Your task to perform on an android device: change notifications settings Image 0: 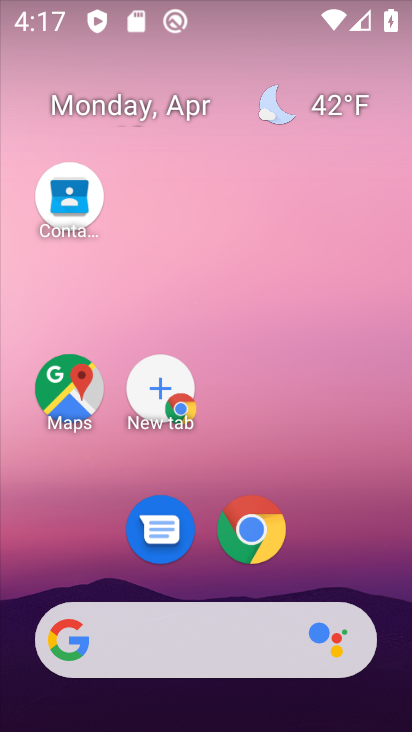
Step 0: drag from (186, 489) to (249, 102)
Your task to perform on an android device: change notifications settings Image 1: 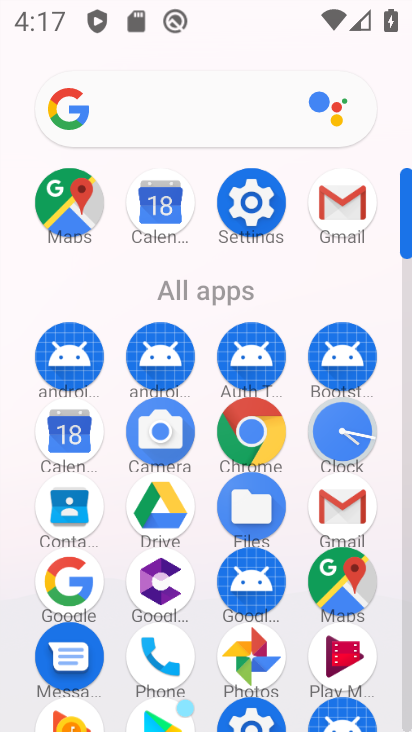
Step 1: click (257, 206)
Your task to perform on an android device: change notifications settings Image 2: 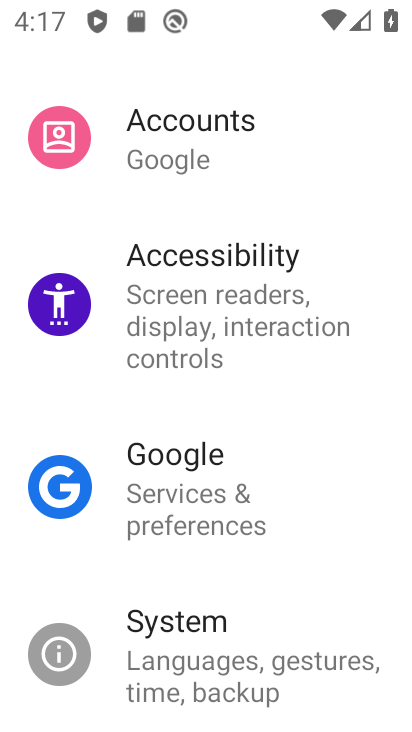
Step 2: drag from (241, 181) to (184, 619)
Your task to perform on an android device: change notifications settings Image 3: 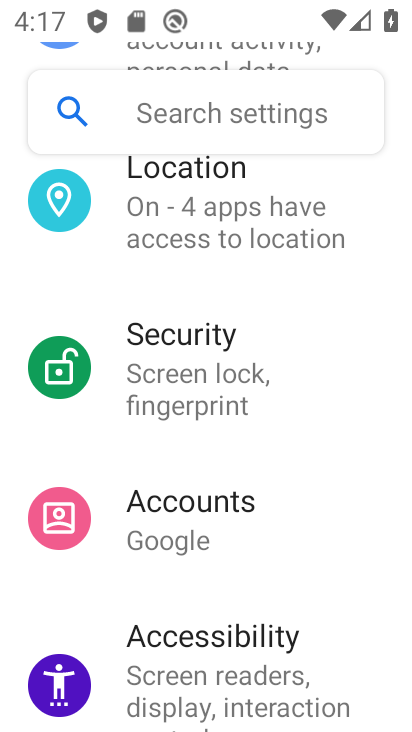
Step 3: drag from (247, 193) to (209, 714)
Your task to perform on an android device: change notifications settings Image 4: 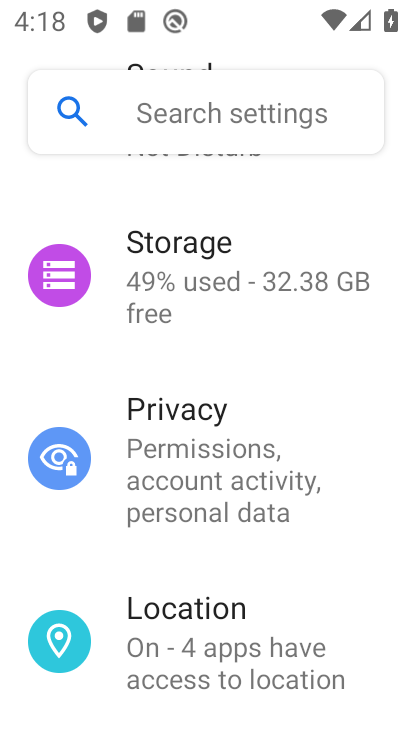
Step 4: drag from (248, 245) to (185, 704)
Your task to perform on an android device: change notifications settings Image 5: 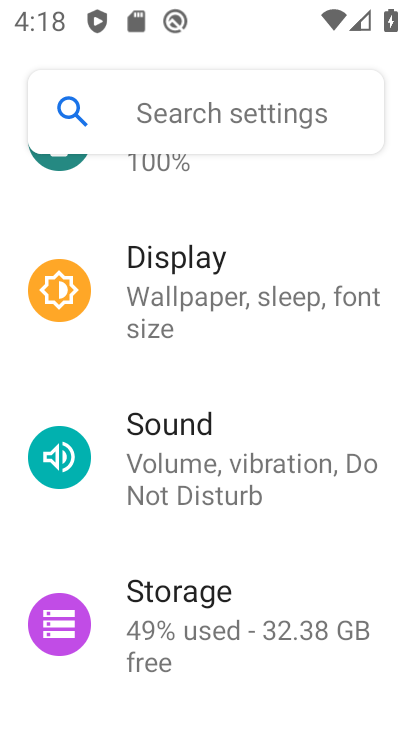
Step 5: drag from (242, 238) to (179, 665)
Your task to perform on an android device: change notifications settings Image 6: 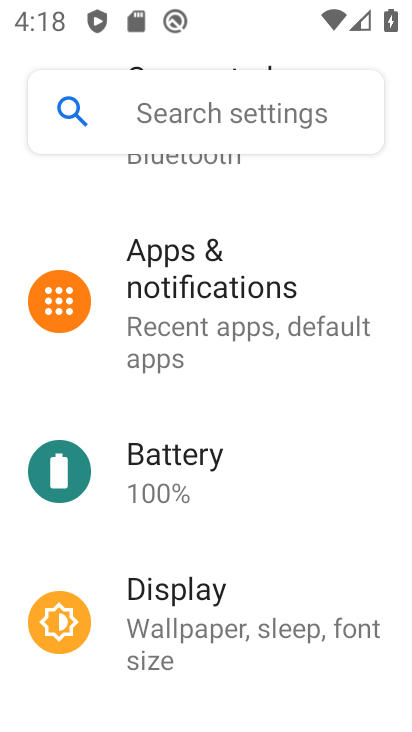
Step 6: click (226, 315)
Your task to perform on an android device: change notifications settings Image 7: 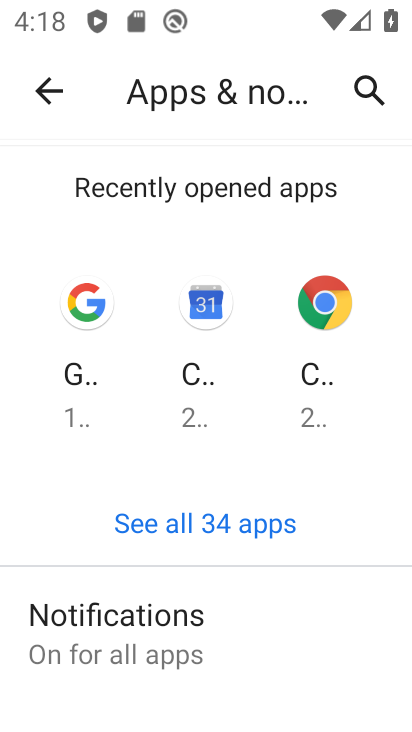
Step 7: click (184, 626)
Your task to perform on an android device: change notifications settings Image 8: 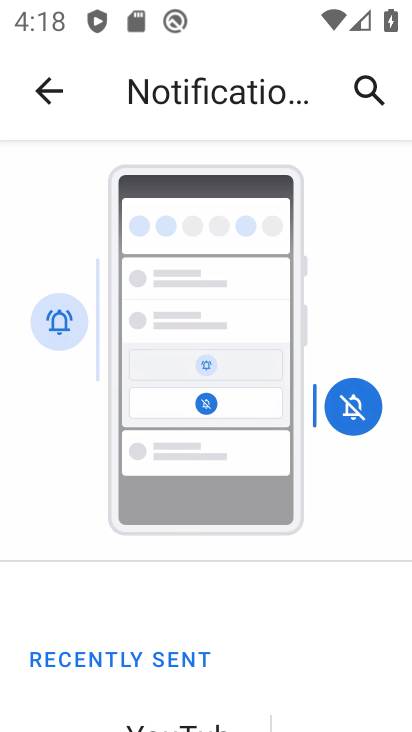
Step 8: drag from (186, 669) to (331, 138)
Your task to perform on an android device: change notifications settings Image 9: 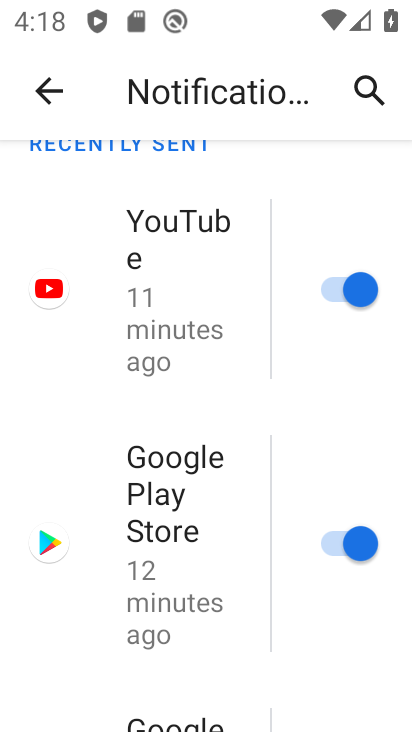
Step 9: drag from (228, 470) to (310, 2)
Your task to perform on an android device: change notifications settings Image 10: 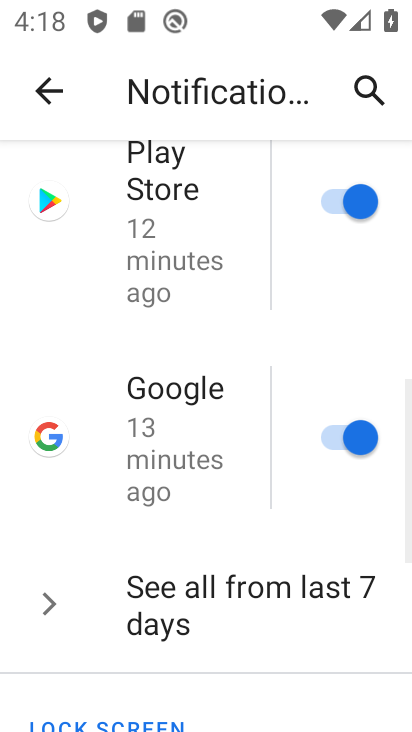
Step 10: drag from (181, 623) to (276, 74)
Your task to perform on an android device: change notifications settings Image 11: 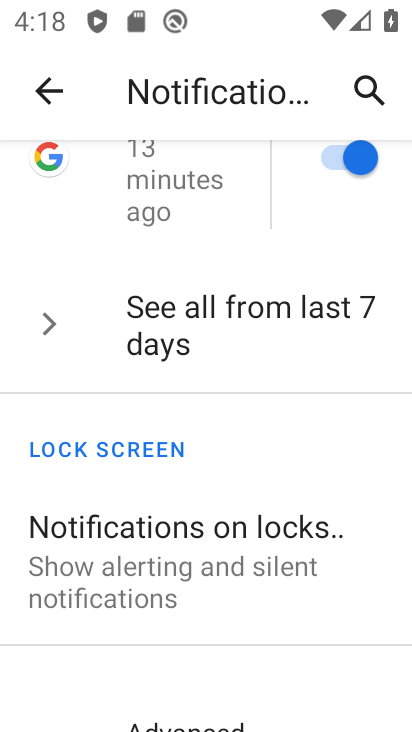
Step 11: drag from (186, 554) to (295, 52)
Your task to perform on an android device: change notifications settings Image 12: 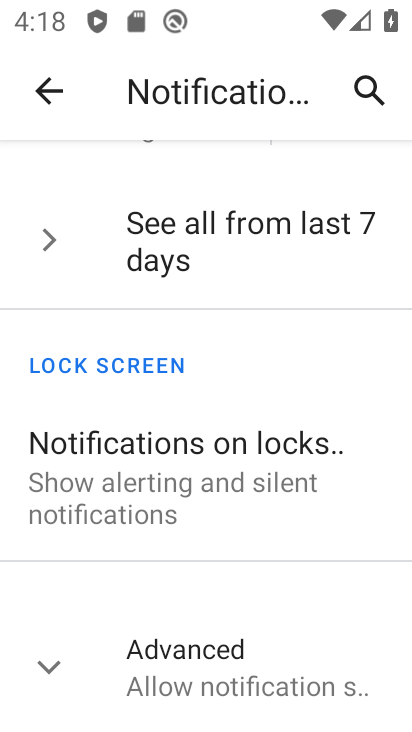
Step 12: click (183, 648)
Your task to perform on an android device: change notifications settings Image 13: 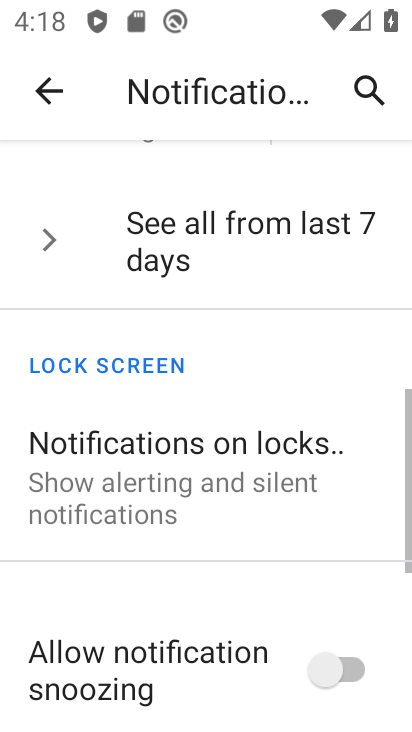
Step 13: drag from (177, 675) to (296, 174)
Your task to perform on an android device: change notifications settings Image 14: 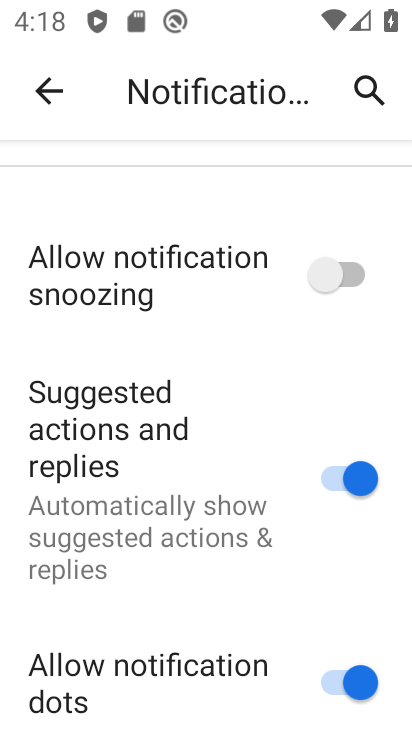
Step 14: click (331, 278)
Your task to perform on an android device: change notifications settings Image 15: 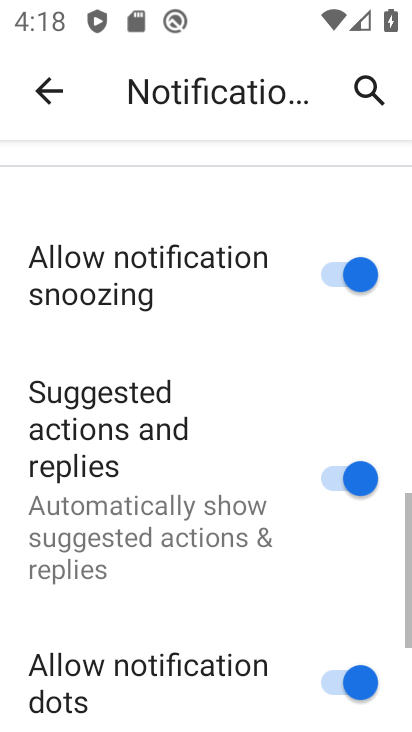
Step 15: task complete